Your task to perform on an android device: Open Youtube and go to the subscriptions tab Image 0: 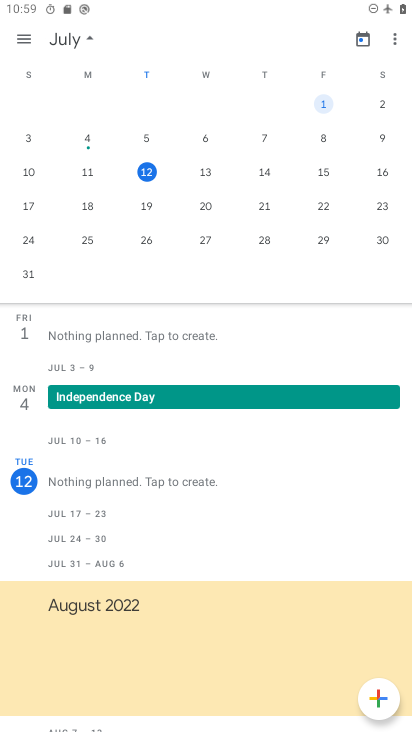
Step 0: press home button
Your task to perform on an android device: Open Youtube and go to the subscriptions tab Image 1: 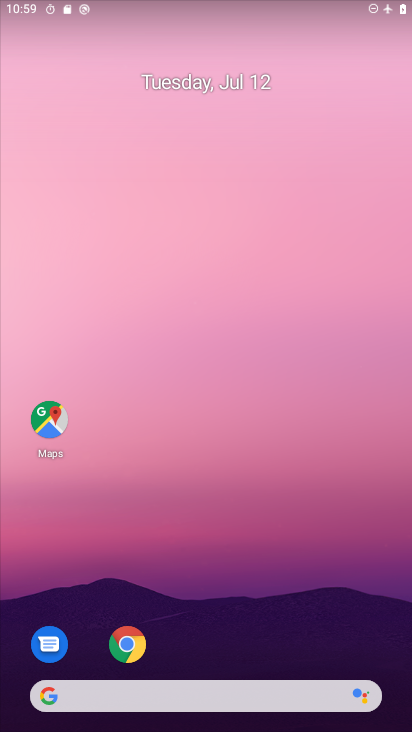
Step 1: drag from (221, 639) to (246, 202)
Your task to perform on an android device: Open Youtube and go to the subscriptions tab Image 2: 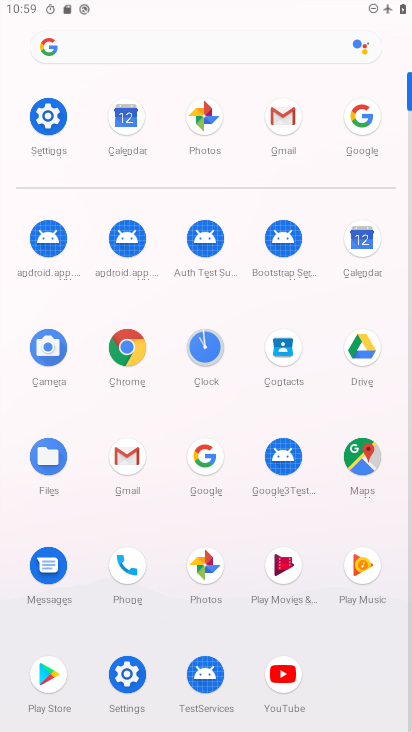
Step 2: click (282, 673)
Your task to perform on an android device: Open Youtube and go to the subscriptions tab Image 3: 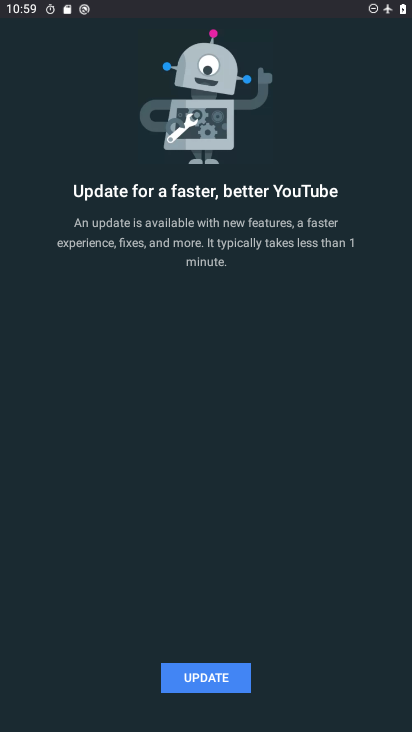
Step 3: click (241, 664)
Your task to perform on an android device: Open Youtube and go to the subscriptions tab Image 4: 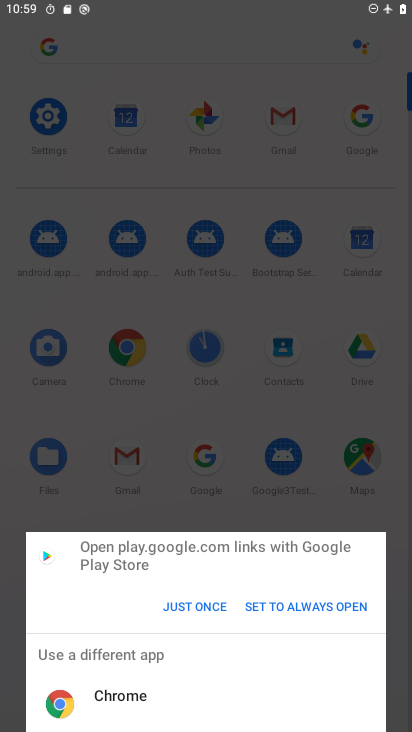
Step 4: click (189, 612)
Your task to perform on an android device: Open Youtube and go to the subscriptions tab Image 5: 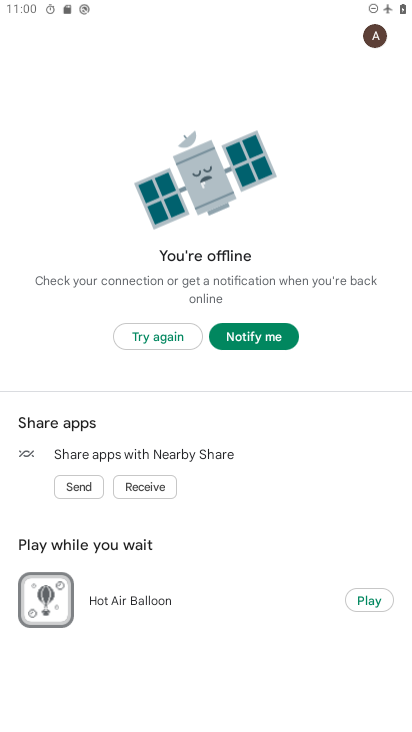
Step 5: task complete